Your task to perform on an android device: turn off smart reply in the gmail app Image 0: 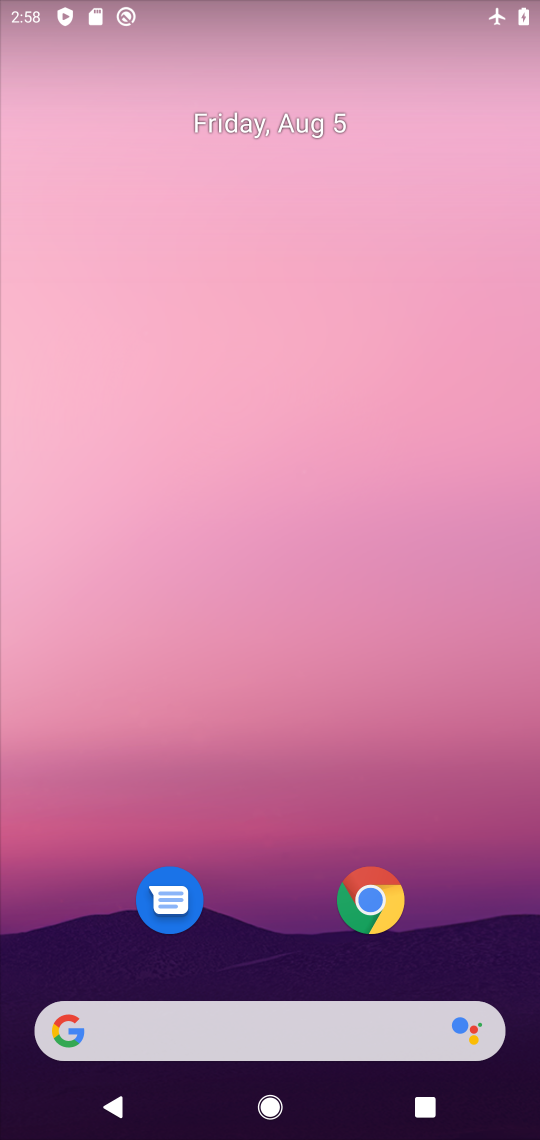
Step 0: press home button
Your task to perform on an android device: turn off smart reply in the gmail app Image 1: 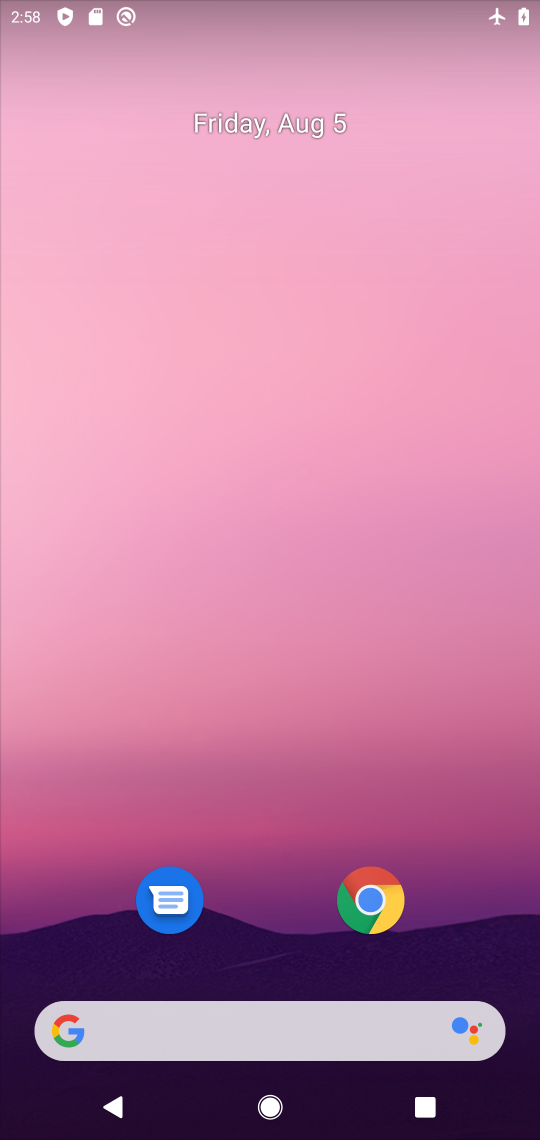
Step 1: drag from (310, 969) to (306, 202)
Your task to perform on an android device: turn off smart reply in the gmail app Image 2: 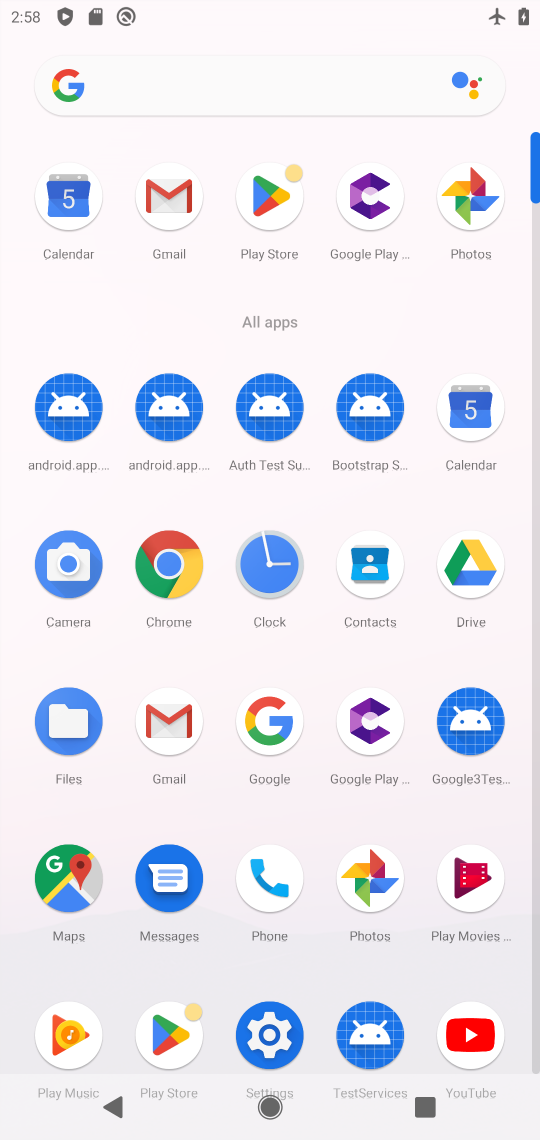
Step 2: click (172, 206)
Your task to perform on an android device: turn off smart reply in the gmail app Image 3: 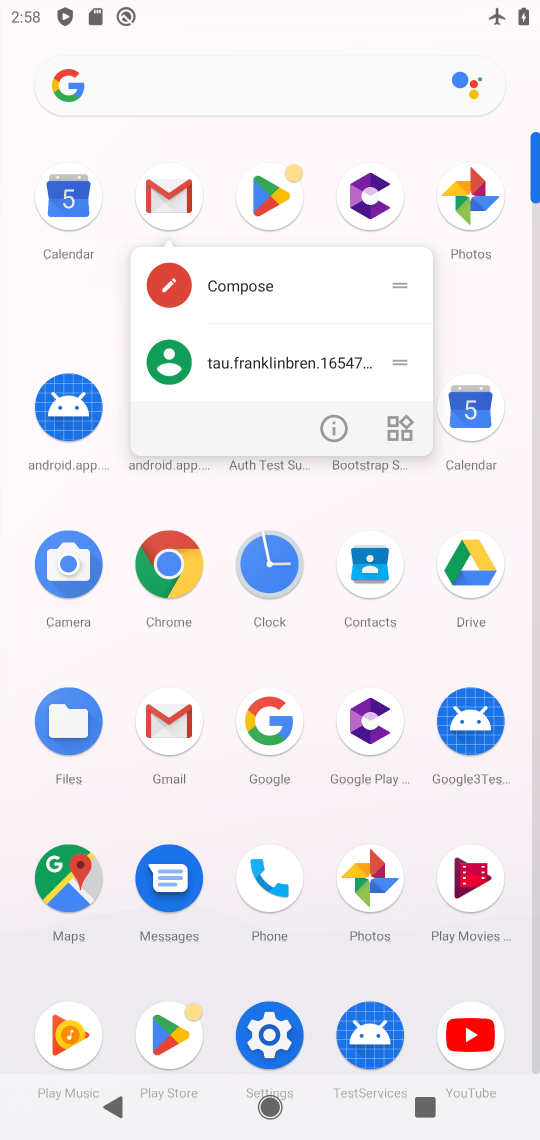
Step 3: click (172, 206)
Your task to perform on an android device: turn off smart reply in the gmail app Image 4: 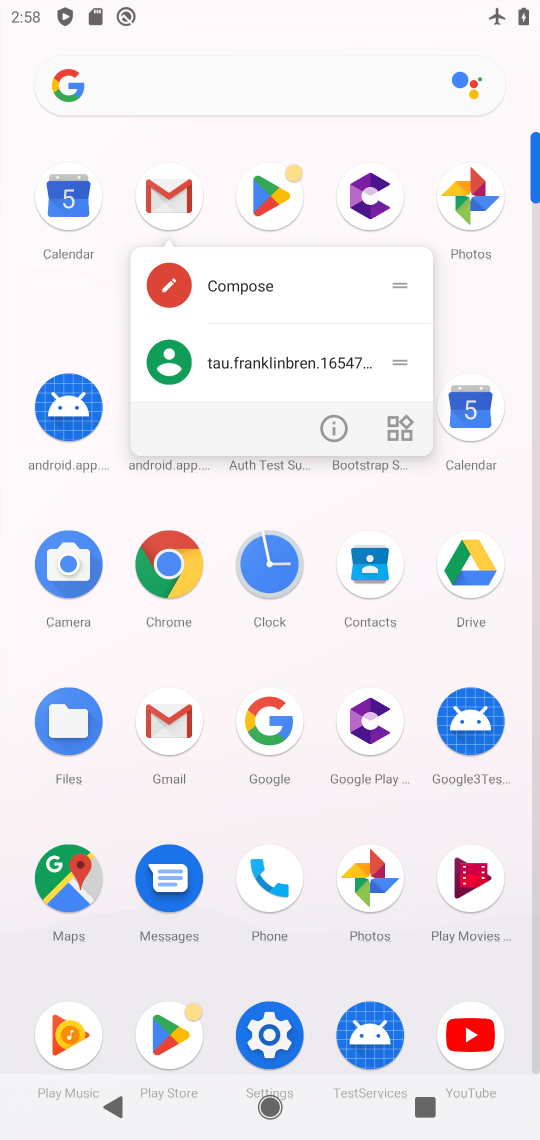
Step 4: click (172, 206)
Your task to perform on an android device: turn off smart reply in the gmail app Image 5: 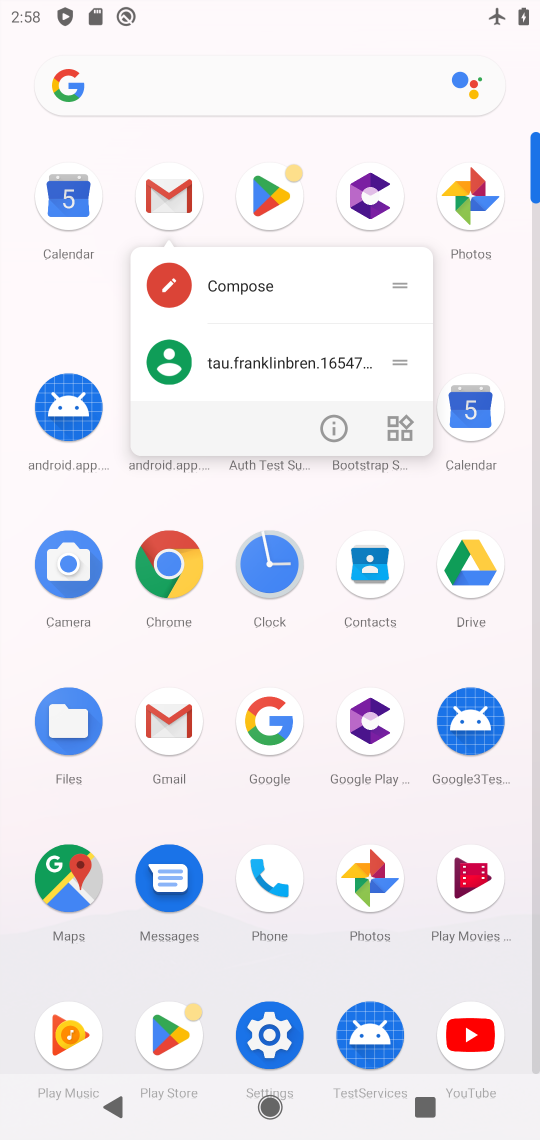
Step 5: click (197, 714)
Your task to perform on an android device: turn off smart reply in the gmail app Image 6: 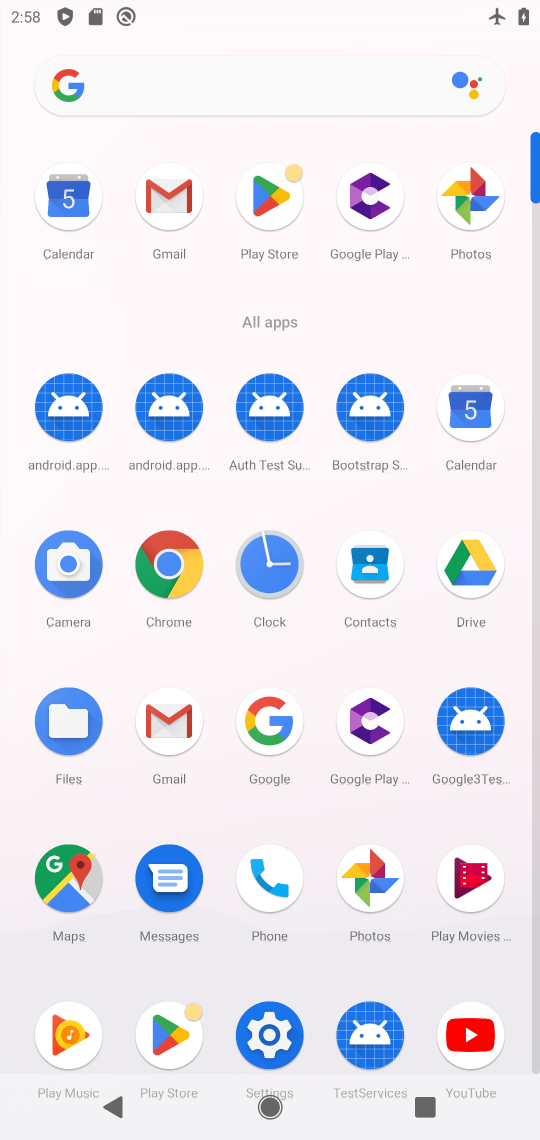
Step 6: click (189, 711)
Your task to perform on an android device: turn off smart reply in the gmail app Image 7: 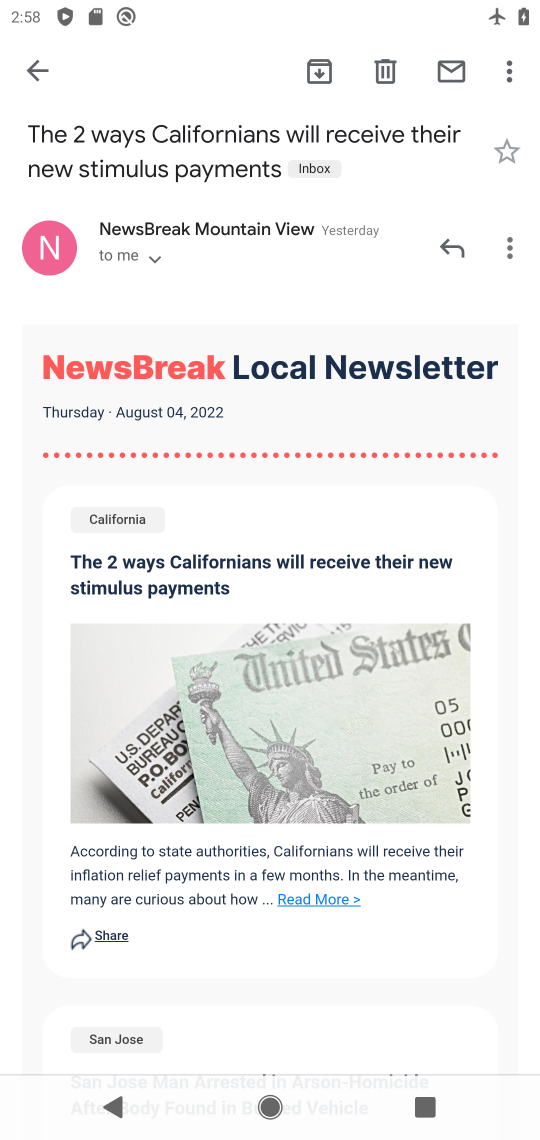
Step 7: click (38, 77)
Your task to perform on an android device: turn off smart reply in the gmail app Image 8: 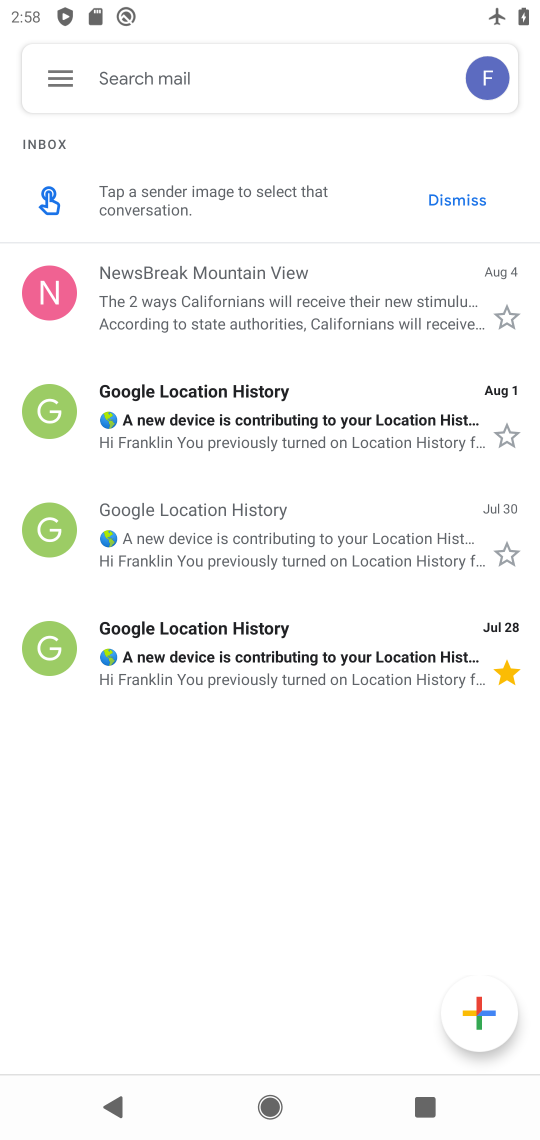
Step 8: click (68, 52)
Your task to perform on an android device: turn off smart reply in the gmail app Image 9: 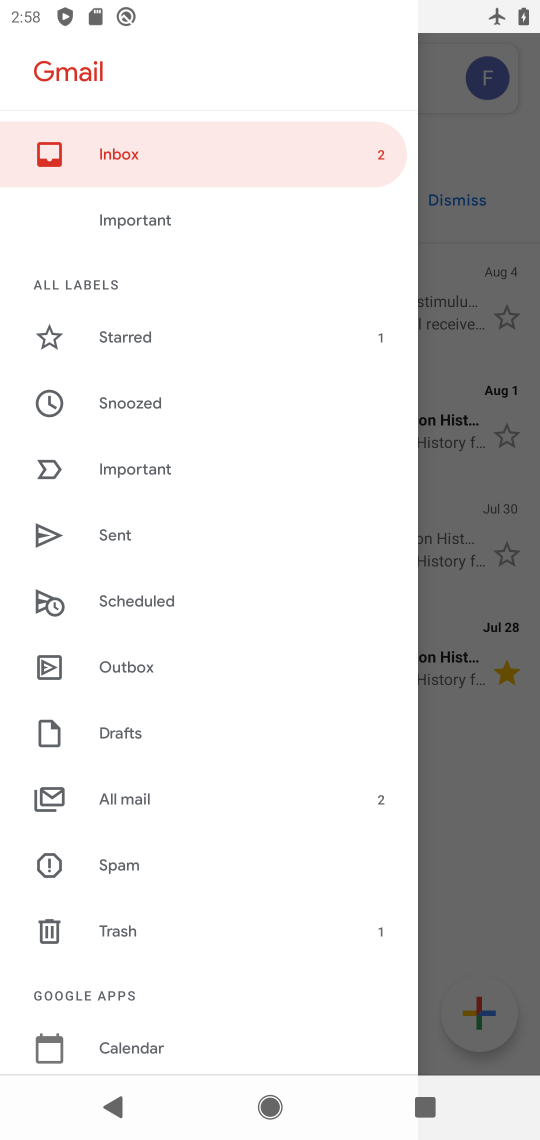
Step 9: drag from (229, 974) to (256, 303)
Your task to perform on an android device: turn off smart reply in the gmail app Image 10: 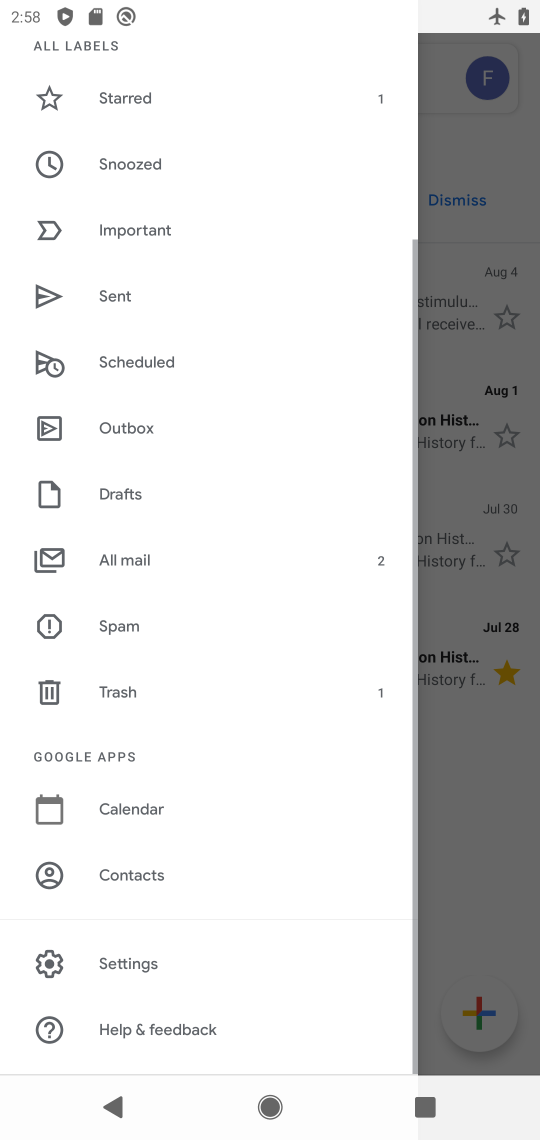
Step 10: drag from (240, 986) to (185, 410)
Your task to perform on an android device: turn off smart reply in the gmail app Image 11: 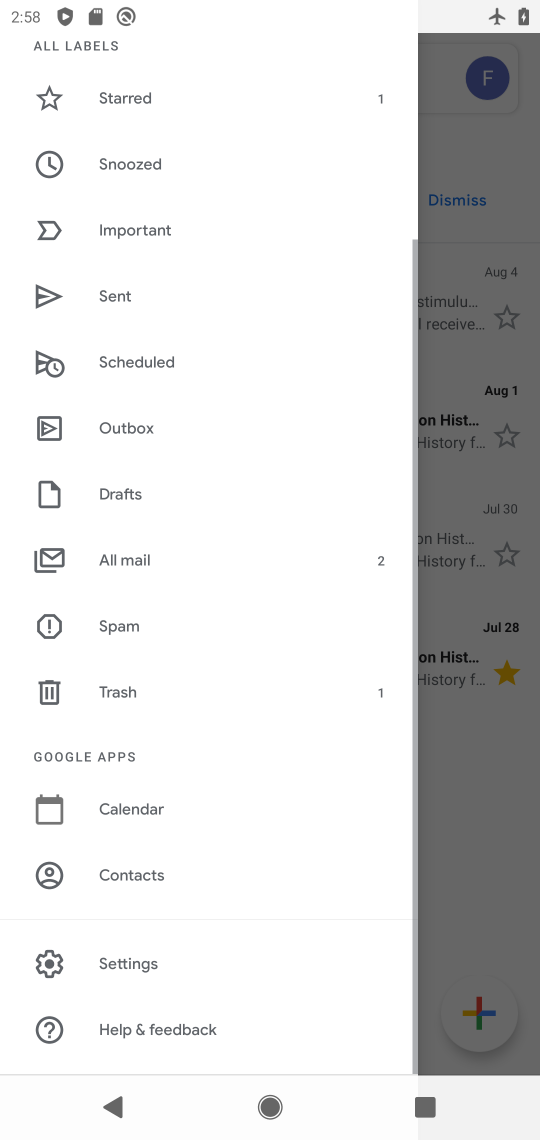
Step 11: click (123, 971)
Your task to perform on an android device: turn off smart reply in the gmail app Image 12: 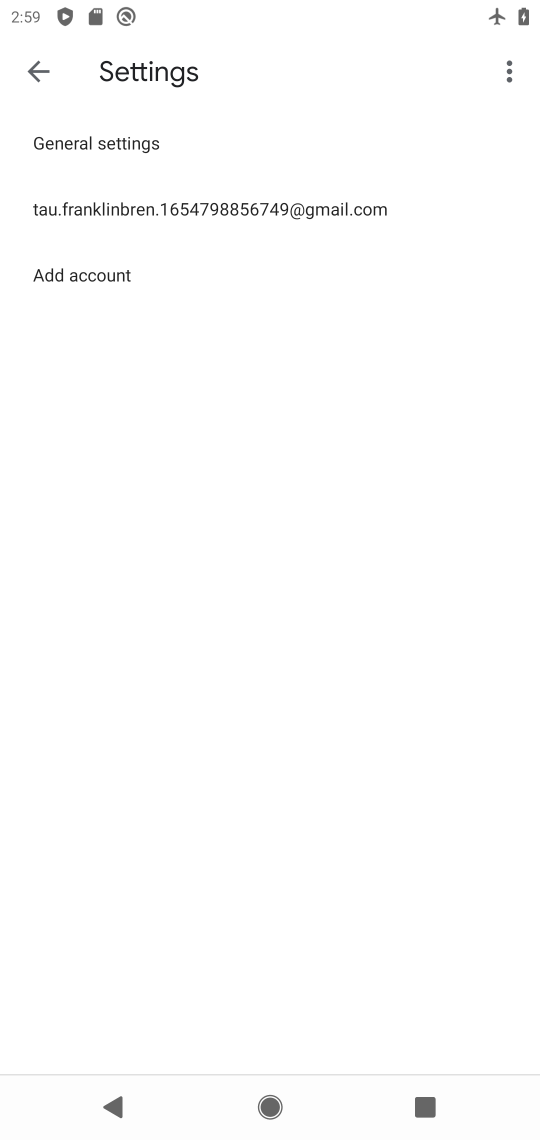
Step 12: click (154, 207)
Your task to perform on an android device: turn off smart reply in the gmail app Image 13: 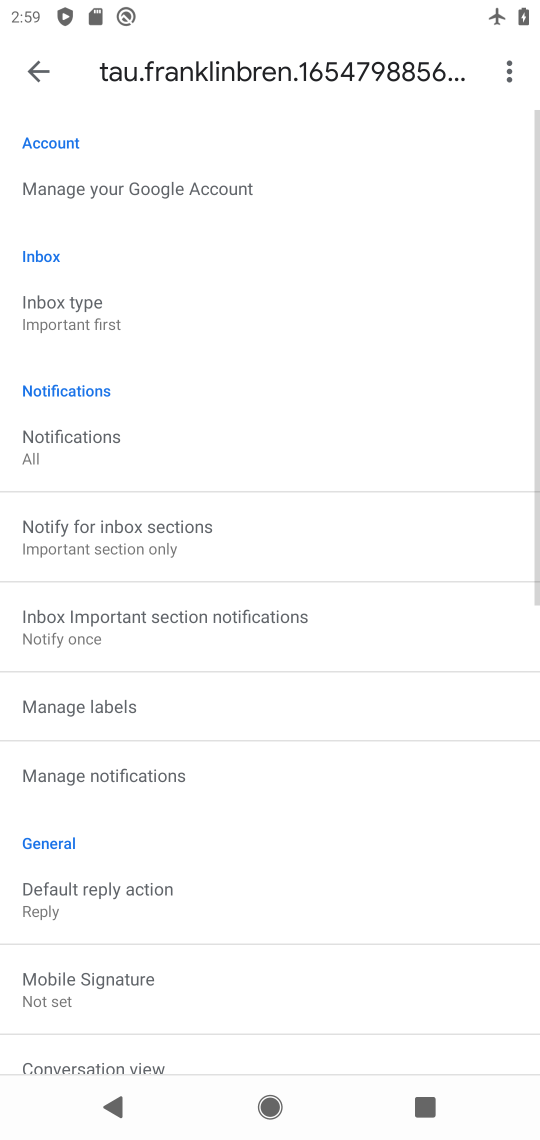
Step 13: drag from (313, 969) to (310, 119)
Your task to perform on an android device: turn off smart reply in the gmail app Image 14: 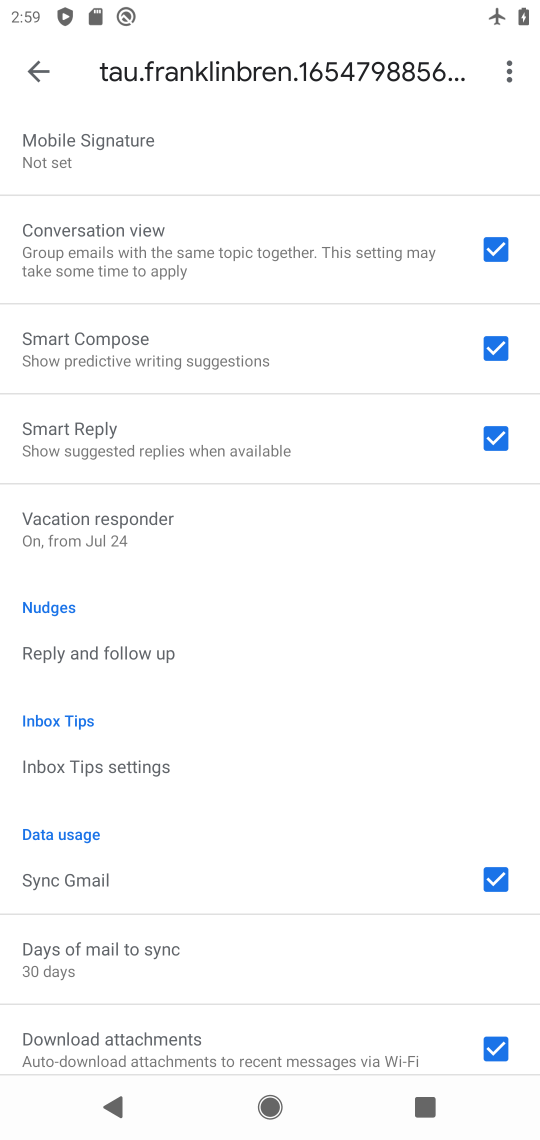
Step 14: click (488, 434)
Your task to perform on an android device: turn off smart reply in the gmail app Image 15: 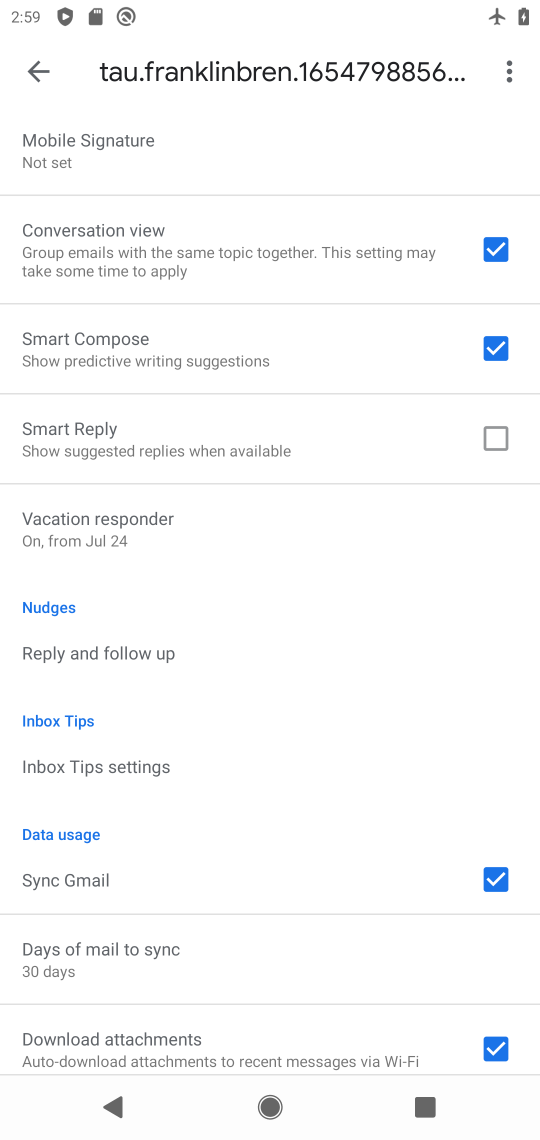
Step 15: task complete